Your task to perform on an android device: turn on location history Image 0: 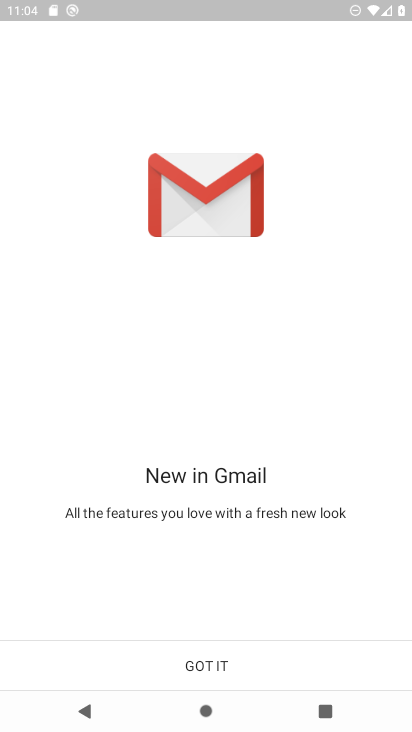
Step 0: press home button
Your task to perform on an android device: turn on location history Image 1: 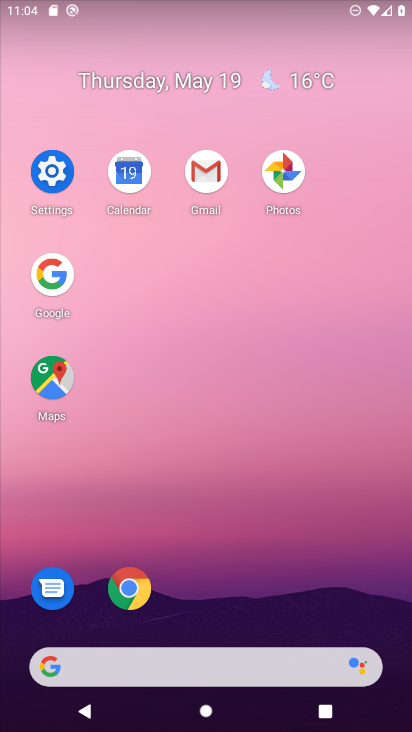
Step 1: click (59, 161)
Your task to perform on an android device: turn on location history Image 2: 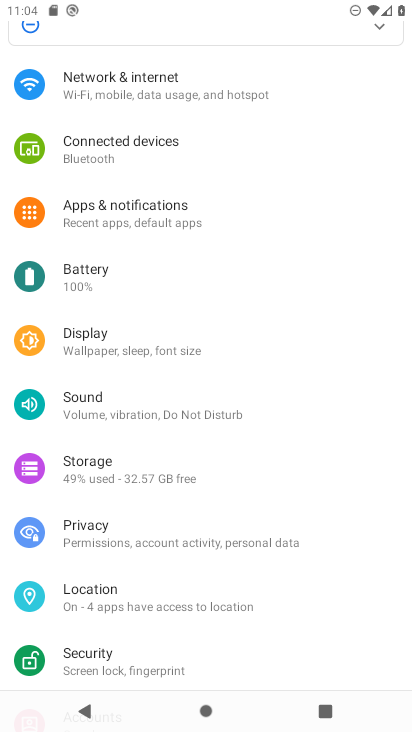
Step 2: click (201, 603)
Your task to perform on an android device: turn on location history Image 3: 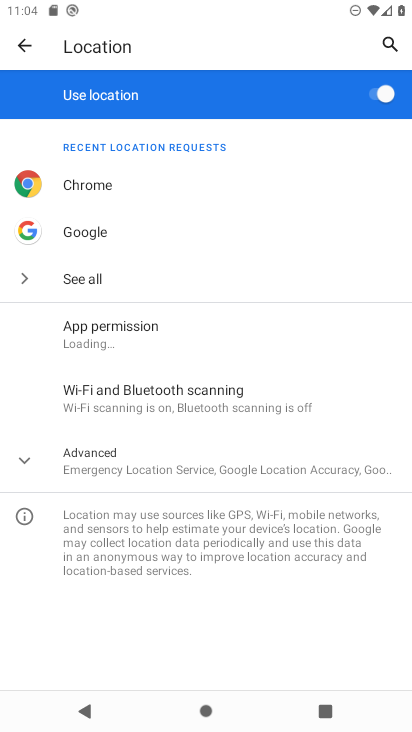
Step 3: click (178, 459)
Your task to perform on an android device: turn on location history Image 4: 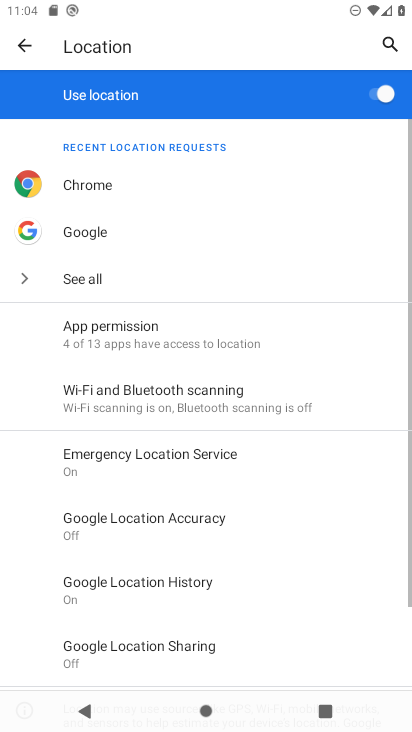
Step 4: click (152, 585)
Your task to perform on an android device: turn on location history Image 5: 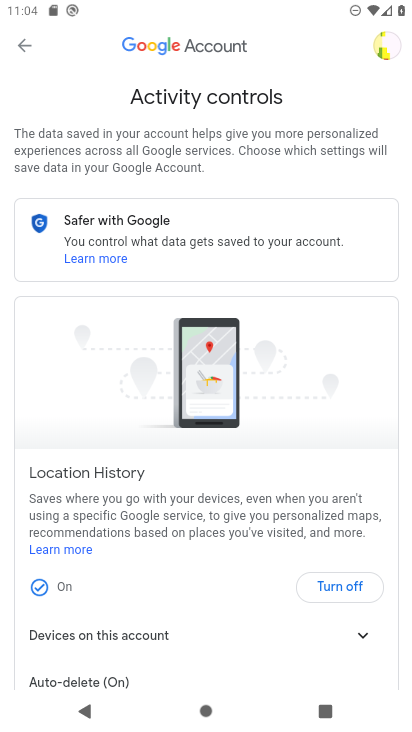
Step 5: task complete